Your task to perform on an android device: Open sound settings Image 0: 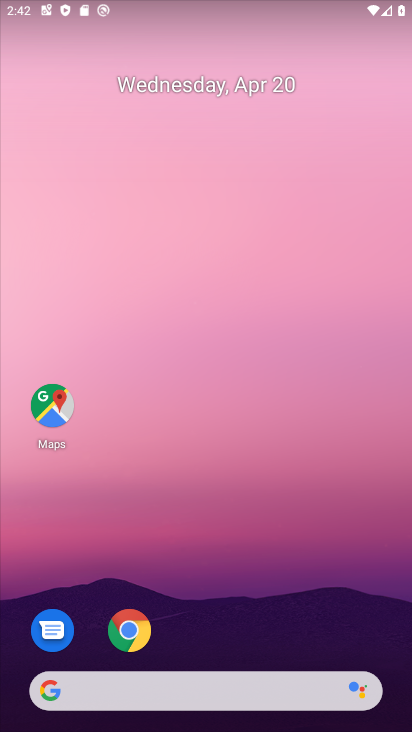
Step 0: drag from (253, 723) to (244, 153)
Your task to perform on an android device: Open sound settings Image 1: 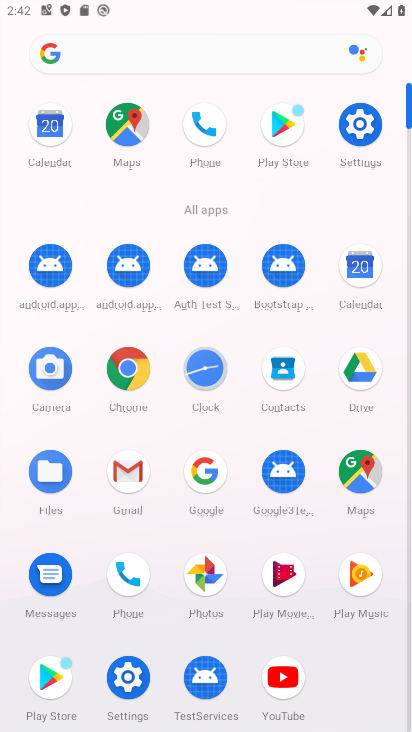
Step 1: click (353, 134)
Your task to perform on an android device: Open sound settings Image 2: 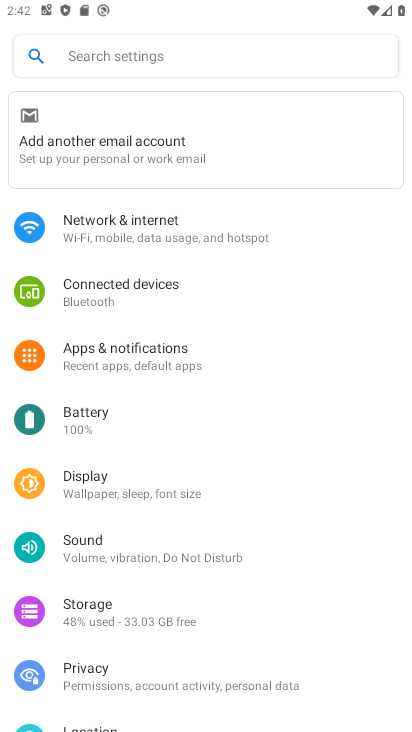
Step 2: click (136, 551)
Your task to perform on an android device: Open sound settings Image 3: 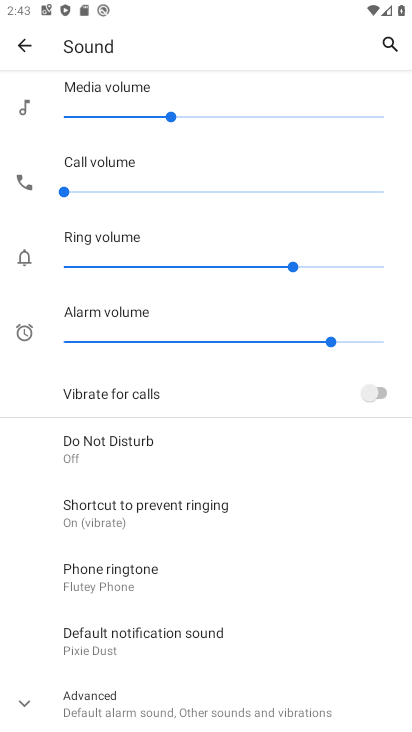
Step 3: task complete